Your task to perform on an android device: Show me recent news Image 0: 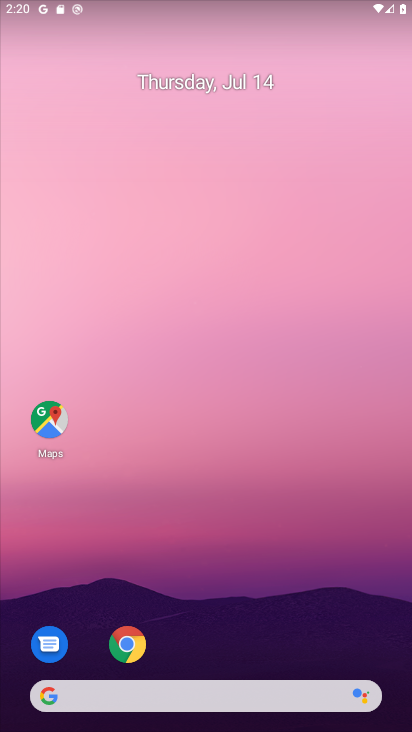
Step 0: drag from (213, 609) to (191, 90)
Your task to perform on an android device: Show me recent news Image 1: 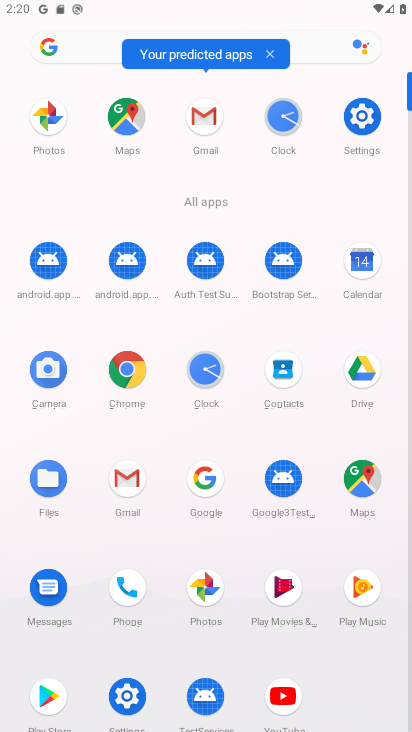
Step 1: click (120, 367)
Your task to perform on an android device: Show me recent news Image 2: 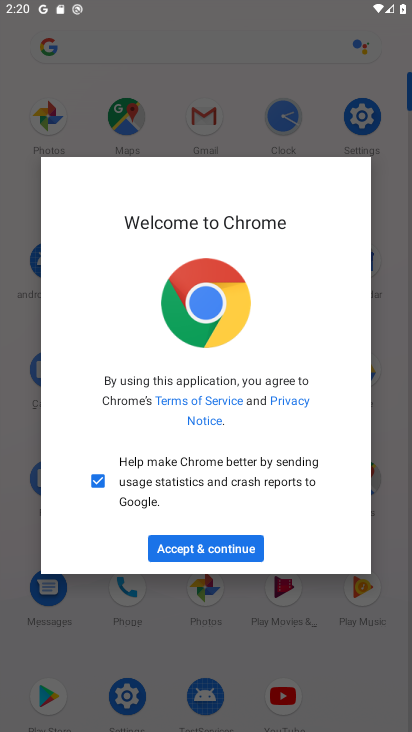
Step 2: click (210, 550)
Your task to perform on an android device: Show me recent news Image 3: 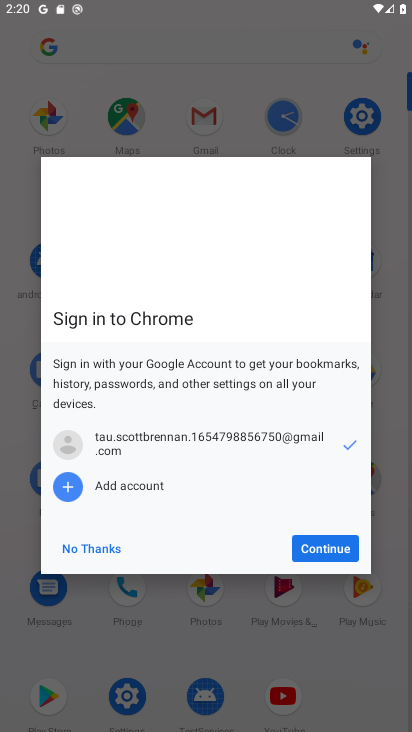
Step 3: click (114, 546)
Your task to perform on an android device: Show me recent news Image 4: 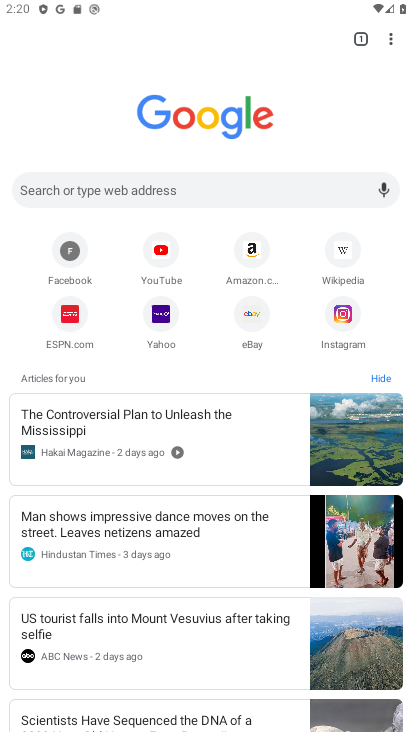
Step 4: task complete